Your task to perform on an android device: Open network settings Image 0: 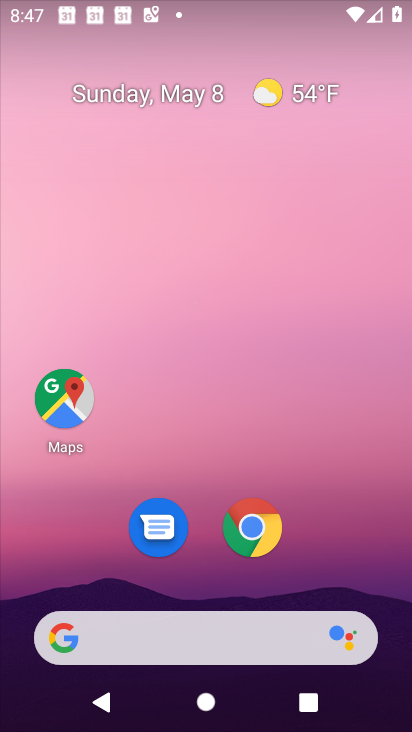
Step 0: drag from (312, 583) to (323, 6)
Your task to perform on an android device: Open network settings Image 1: 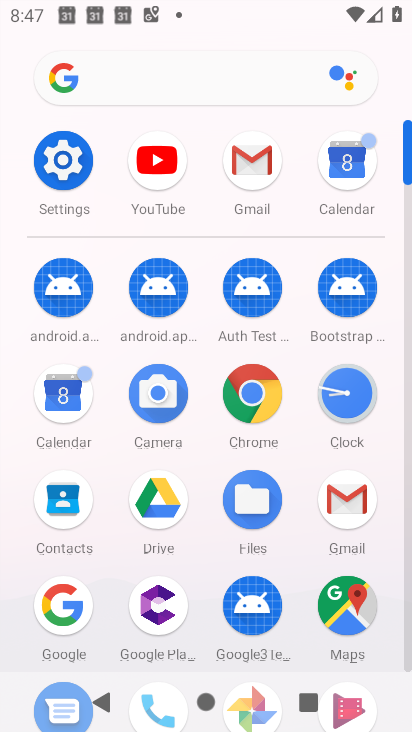
Step 1: click (77, 173)
Your task to perform on an android device: Open network settings Image 2: 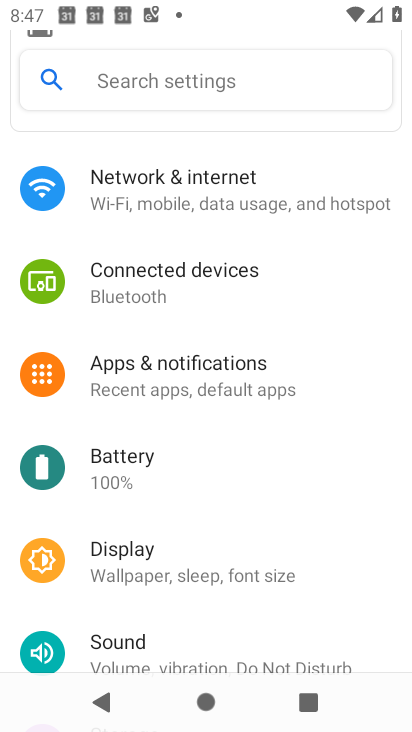
Step 2: click (179, 184)
Your task to perform on an android device: Open network settings Image 3: 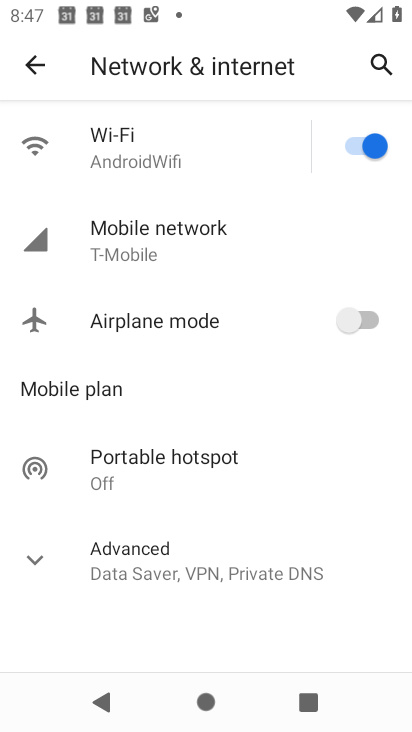
Step 3: click (112, 233)
Your task to perform on an android device: Open network settings Image 4: 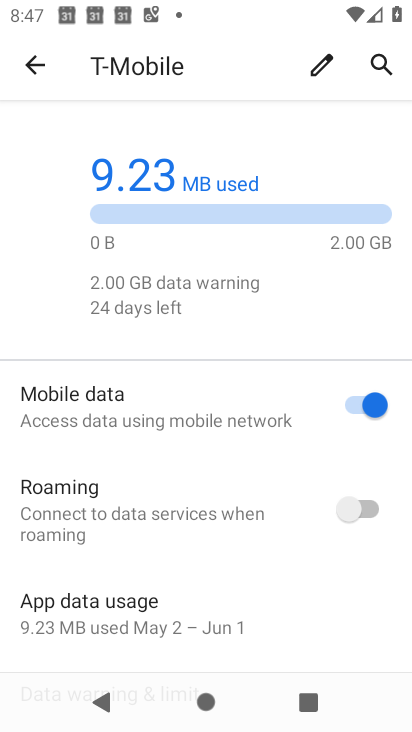
Step 4: task complete